Your task to perform on an android device: turn on notifications settings in the gmail app Image 0: 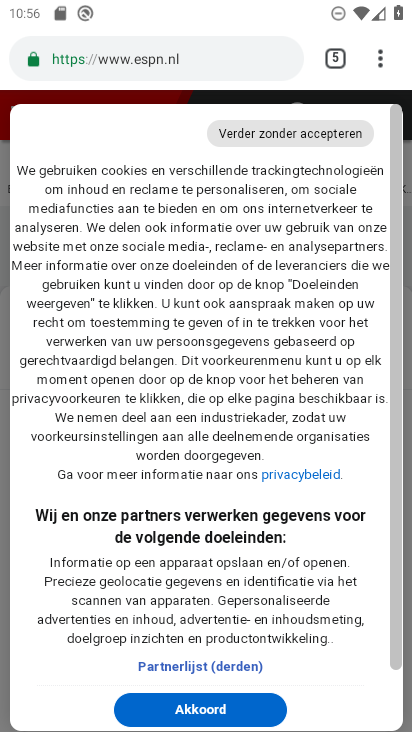
Step 0: press back button
Your task to perform on an android device: turn on notifications settings in the gmail app Image 1: 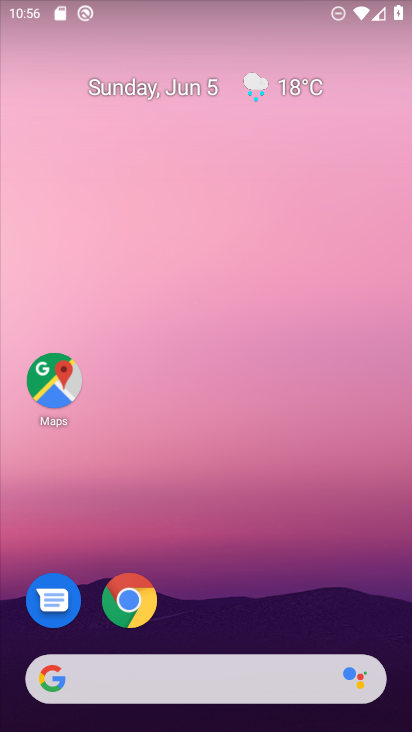
Step 1: drag from (201, 600) to (341, 0)
Your task to perform on an android device: turn on notifications settings in the gmail app Image 2: 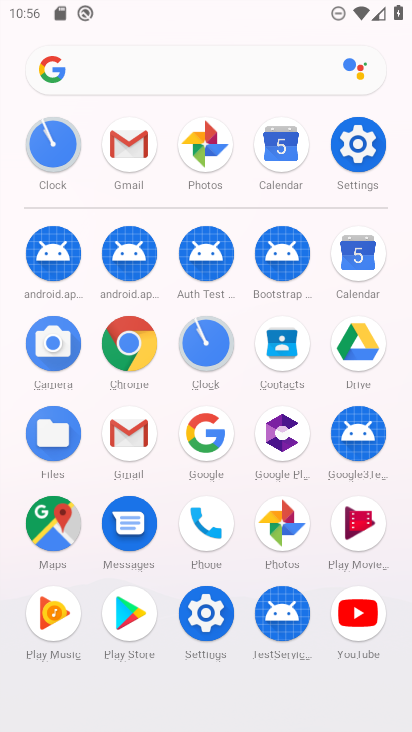
Step 2: click (110, 141)
Your task to perform on an android device: turn on notifications settings in the gmail app Image 3: 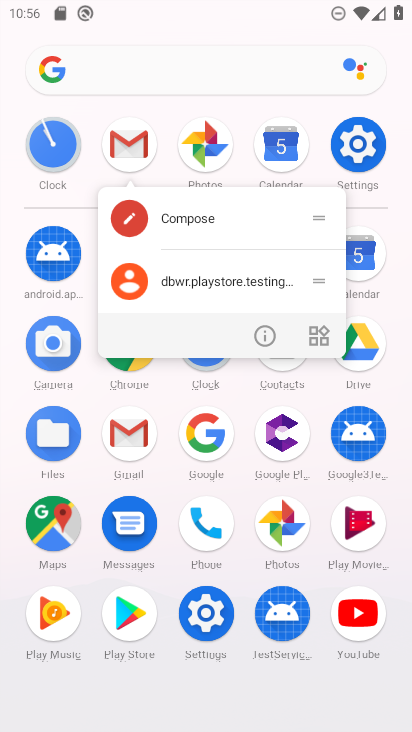
Step 3: click (260, 329)
Your task to perform on an android device: turn on notifications settings in the gmail app Image 4: 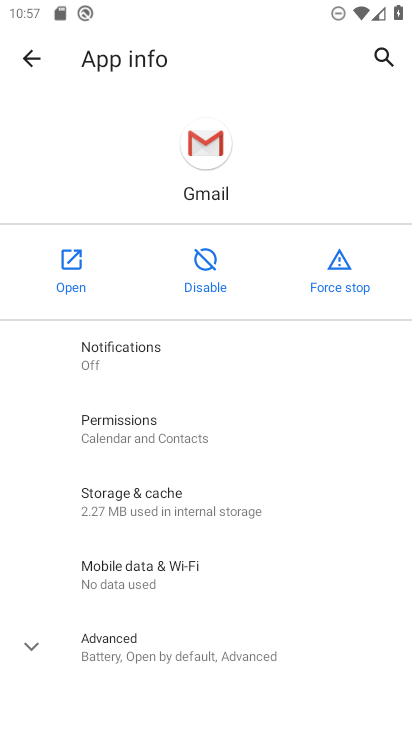
Step 4: click (163, 353)
Your task to perform on an android device: turn on notifications settings in the gmail app Image 5: 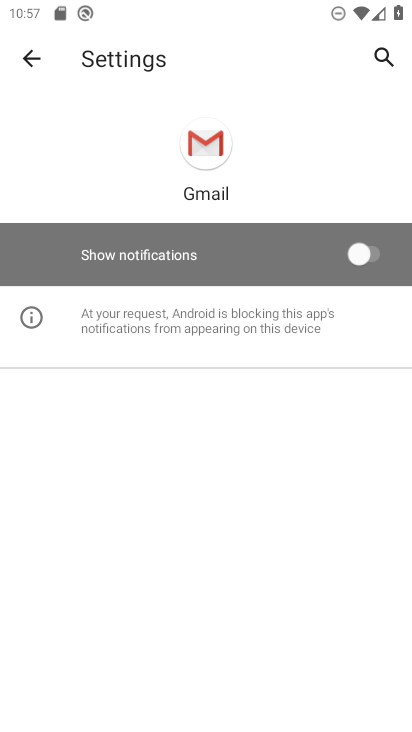
Step 5: click (360, 242)
Your task to perform on an android device: turn on notifications settings in the gmail app Image 6: 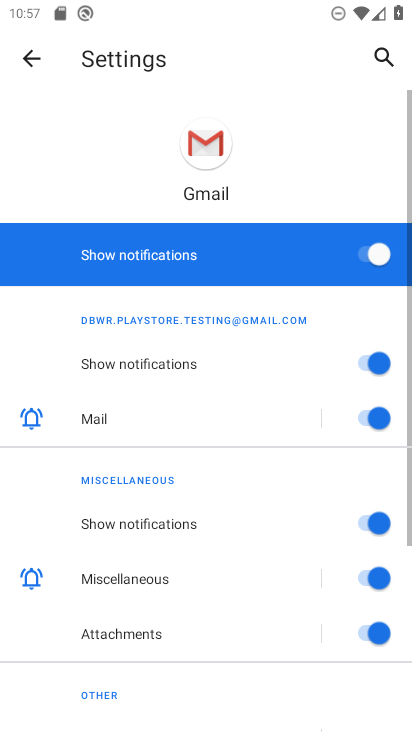
Step 6: task complete